Your task to perform on an android device: uninstall "Google Play services" Image 0: 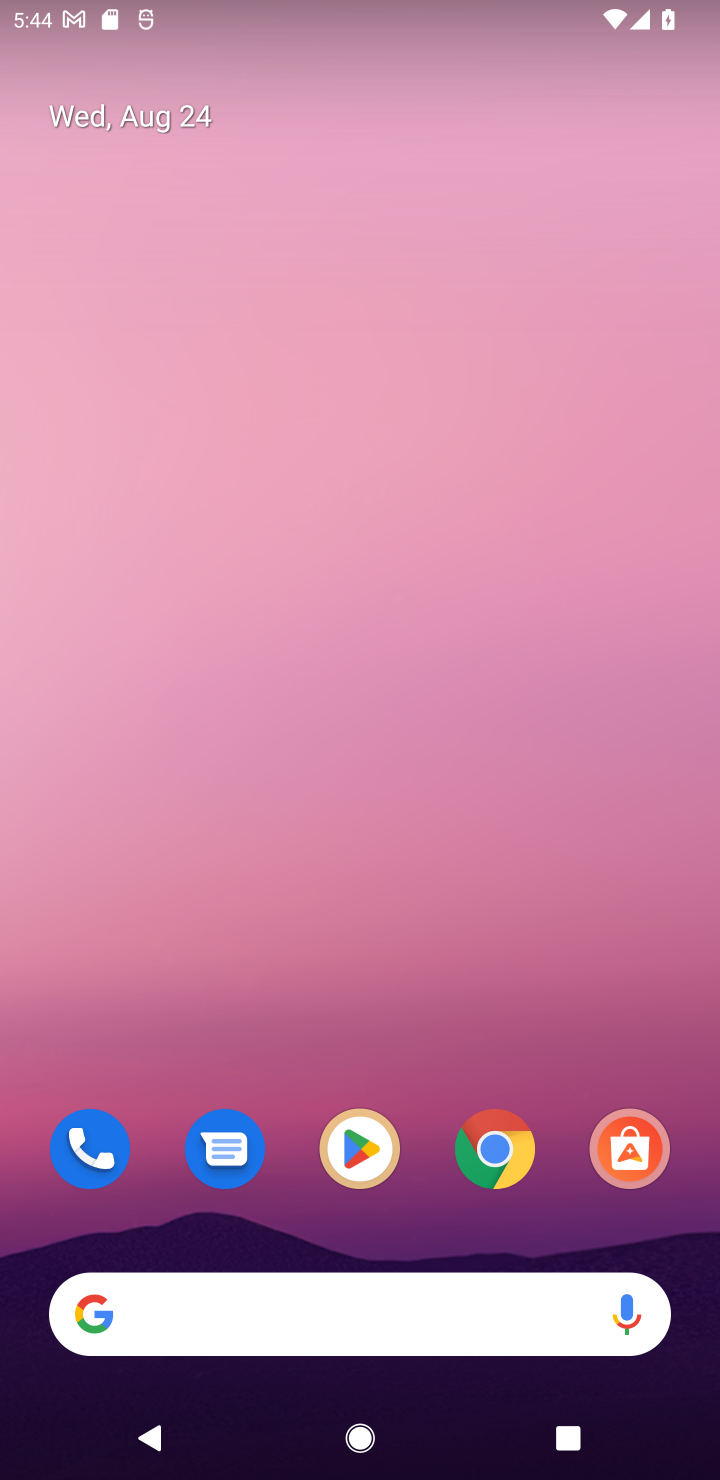
Step 0: click (376, 1160)
Your task to perform on an android device: uninstall "Google Play services" Image 1: 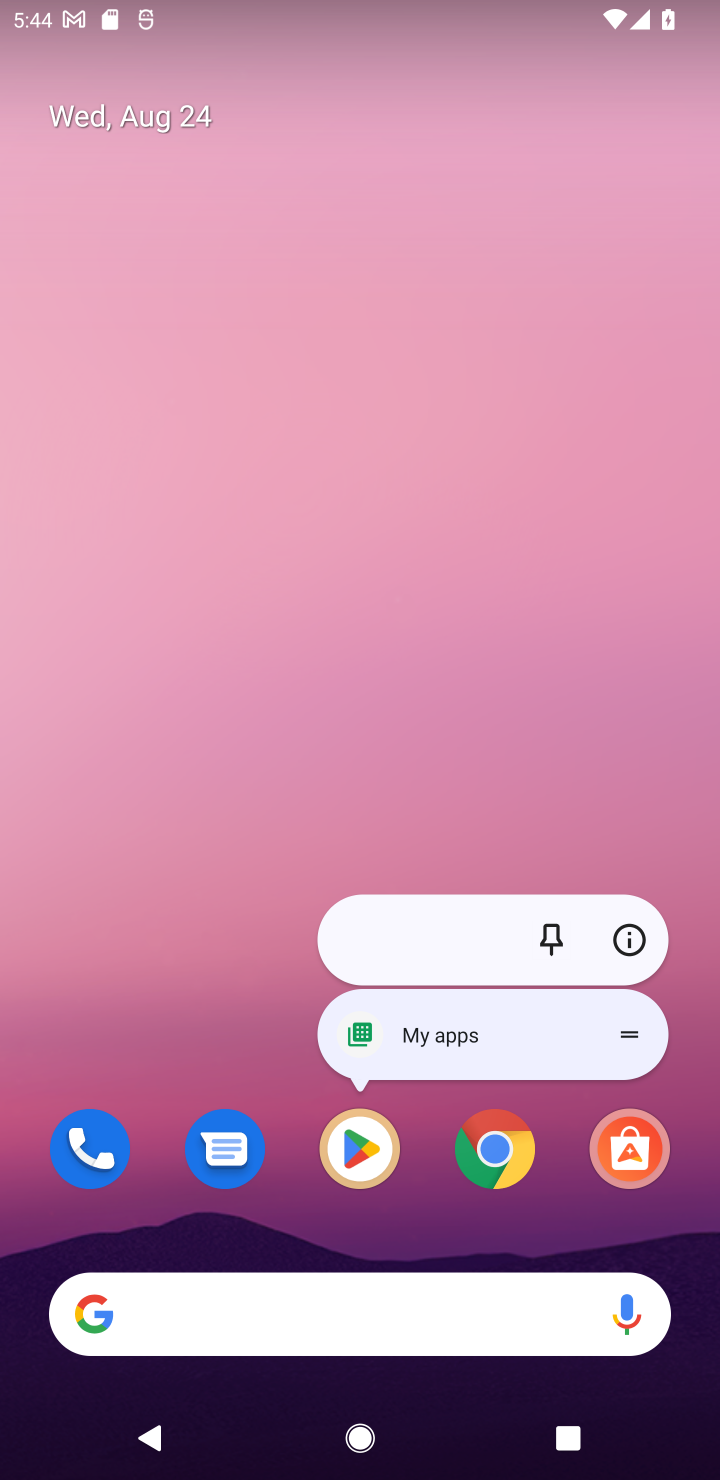
Step 1: click (346, 1157)
Your task to perform on an android device: uninstall "Google Play services" Image 2: 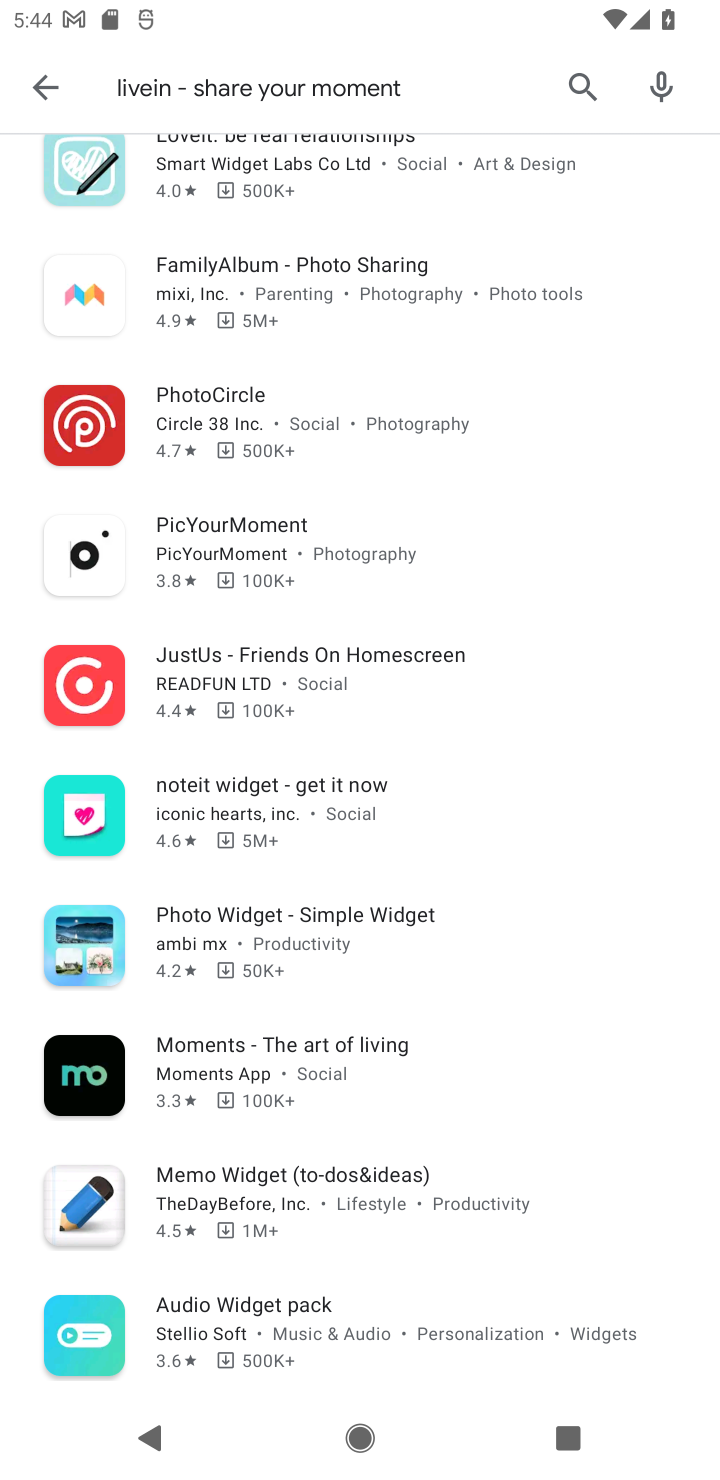
Step 2: click (583, 74)
Your task to perform on an android device: uninstall "Google Play services" Image 3: 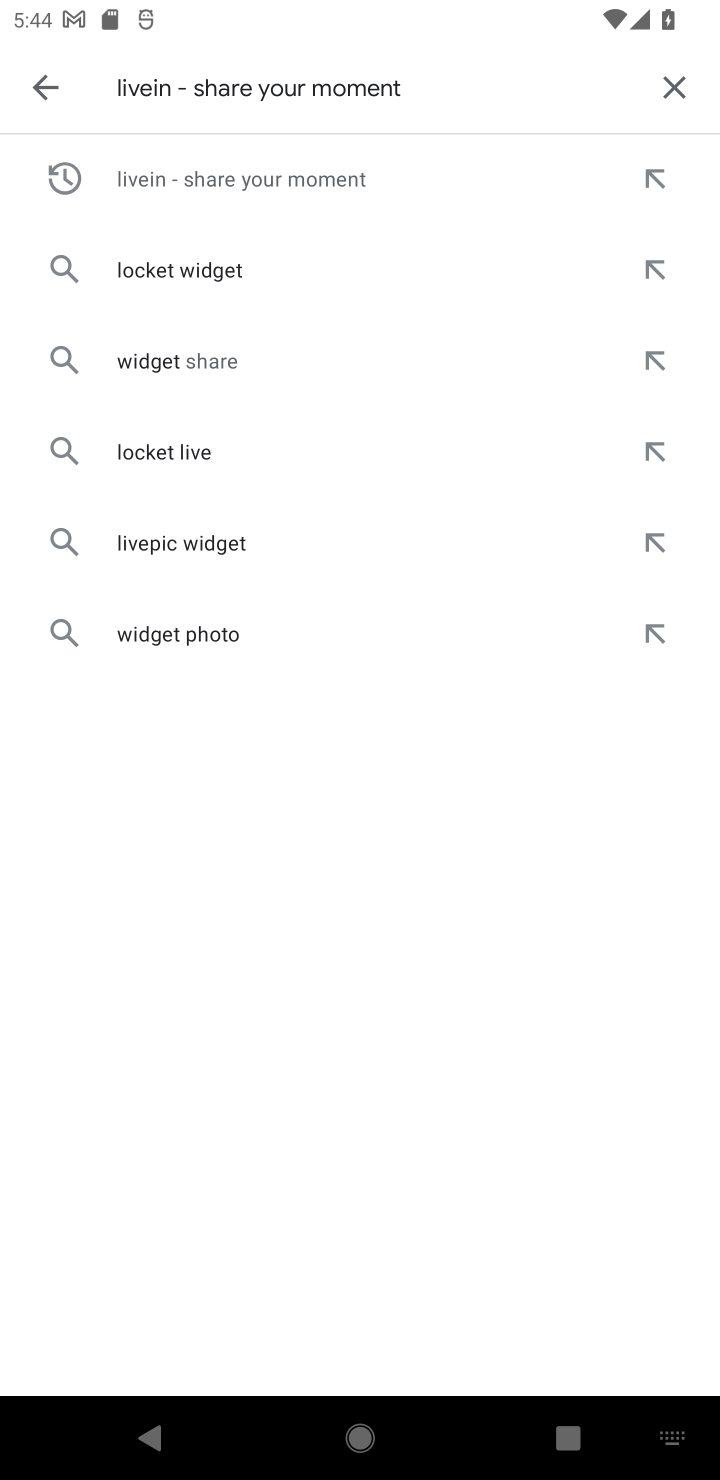
Step 3: click (665, 88)
Your task to perform on an android device: uninstall "Google Play services" Image 4: 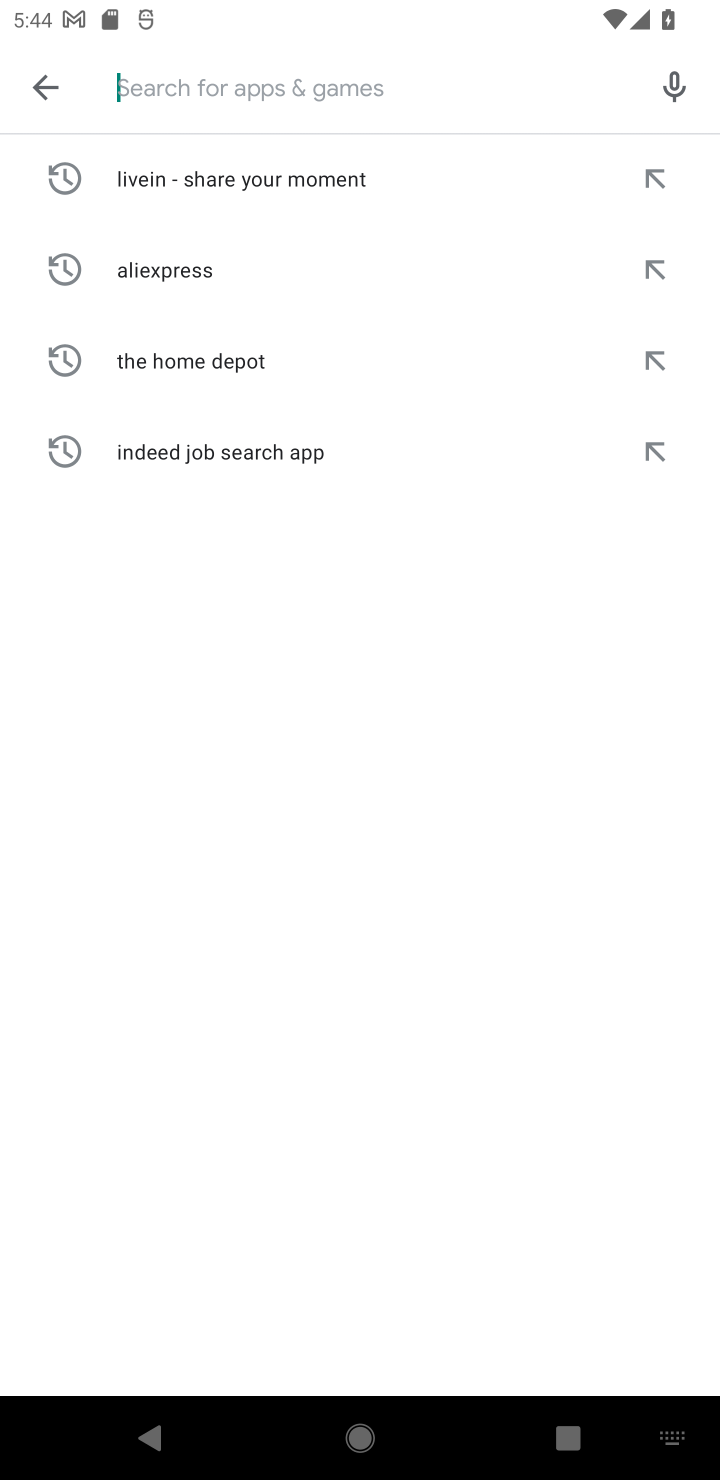
Step 4: type "Google Play services"
Your task to perform on an android device: uninstall "Google Play services" Image 5: 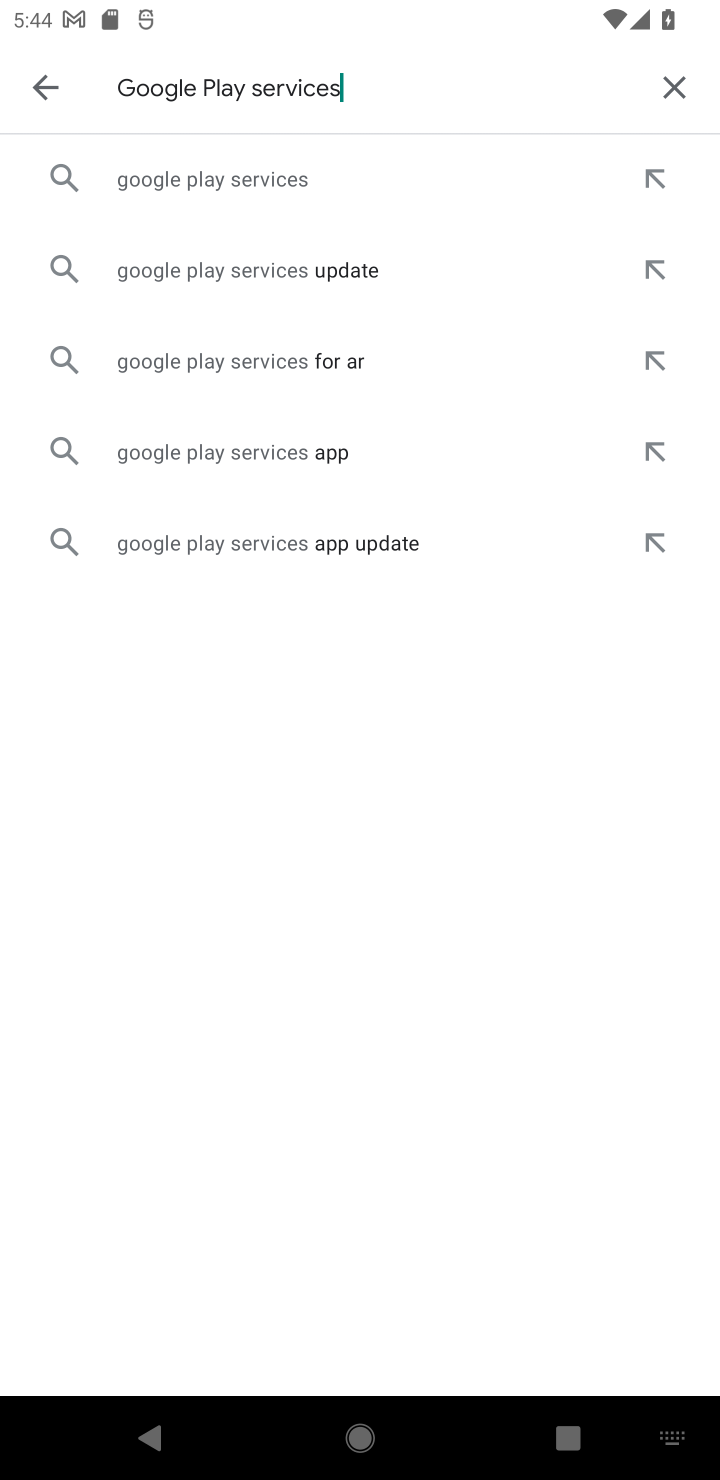
Step 5: click (275, 184)
Your task to perform on an android device: uninstall "Google Play services" Image 6: 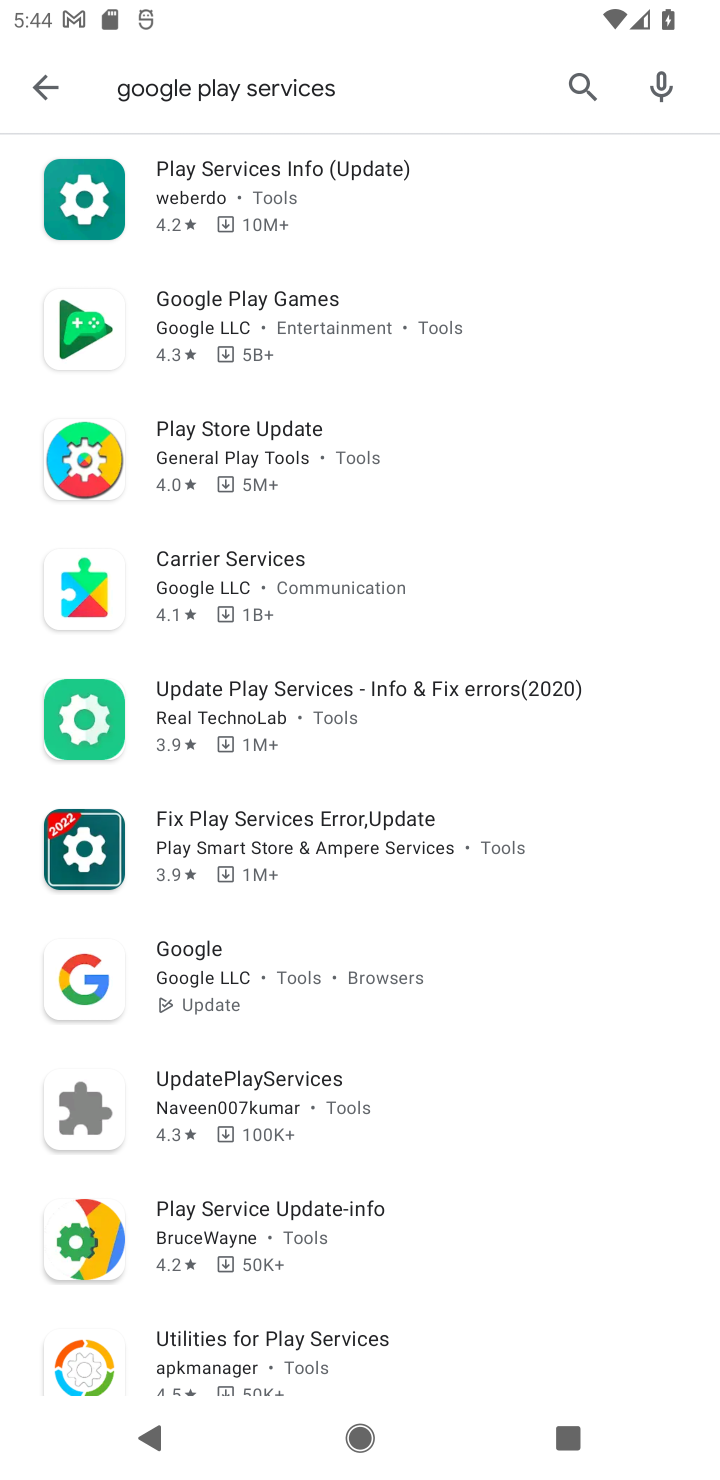
Step 6: task complete